Your task to perform on an android device: check android version Image 0: 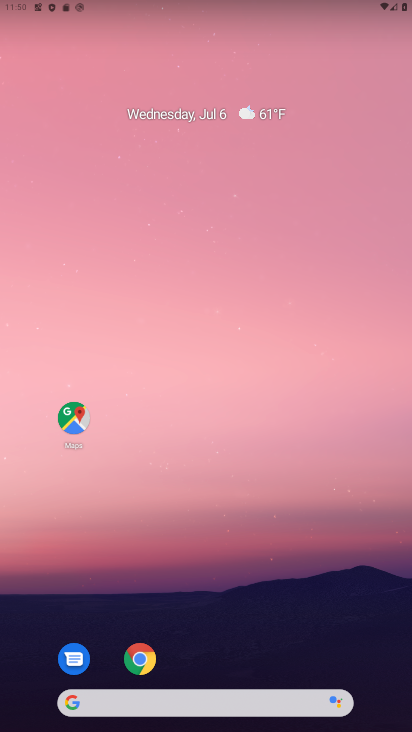
Step 0: drag from (272, 607) to (277, 0)
Your task to perform on an android device: check android version Image 1: 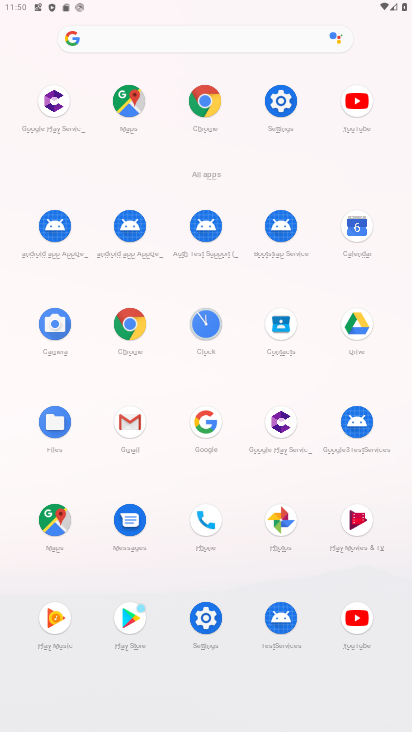
Step 1: click (283, 111)
Your task to perform on an android device: check android version Image 2: 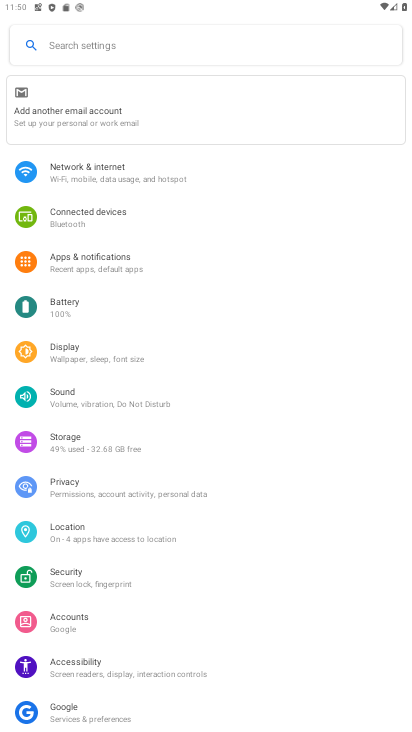
Step 2: drag from (231, 632) to (246, 139)
Your task to perform on an android device: check android version Image 3: 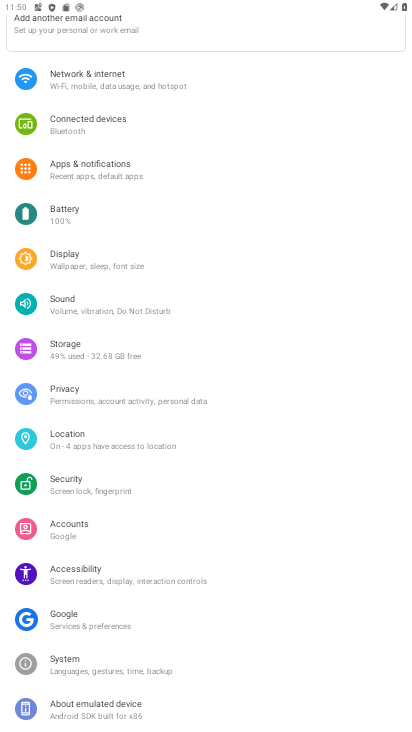
Step 3: click (110, 710)
Your task to perform on an android device: check android version Image 4: 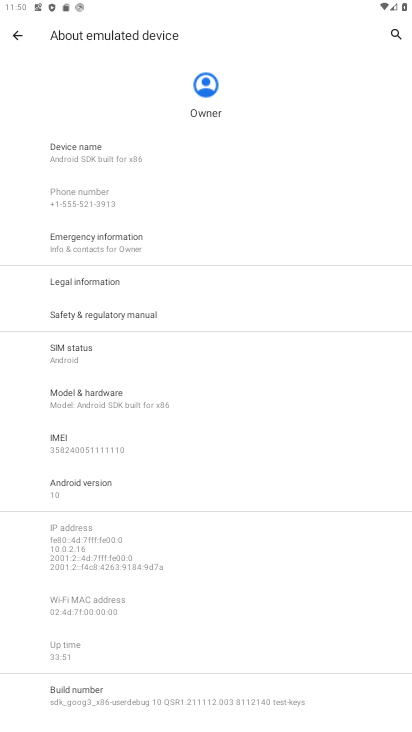
Step 4: click (72, 492)
Your task to perform on an android device: check android version Image 5: 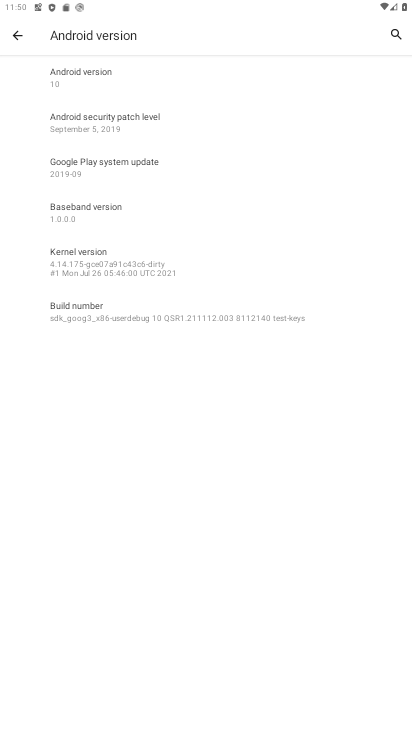
Step 5: task complete